Your task to perform on an android device: Open wifi settings Image 0: 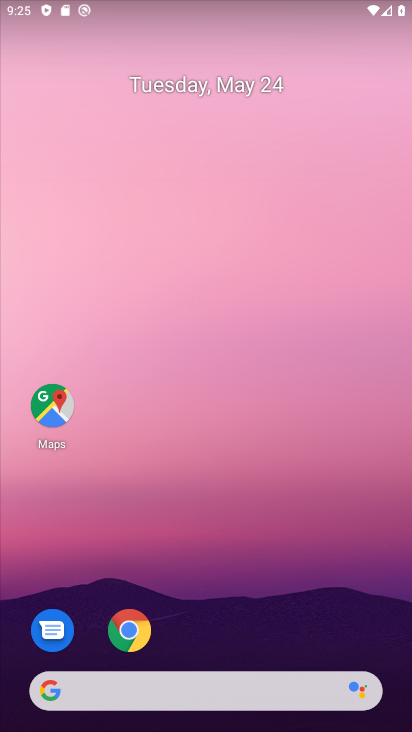
Step 0: drag from (347, 13) to (326, 540)
Your task to perform on an android device: Open wifi settings Image 1: 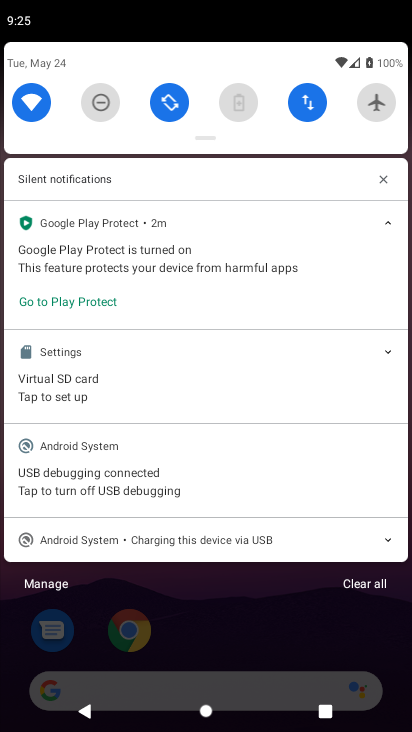
Step 1: click (33, 120)
Your task to perform on an android device: Open wifi settings Image 2: 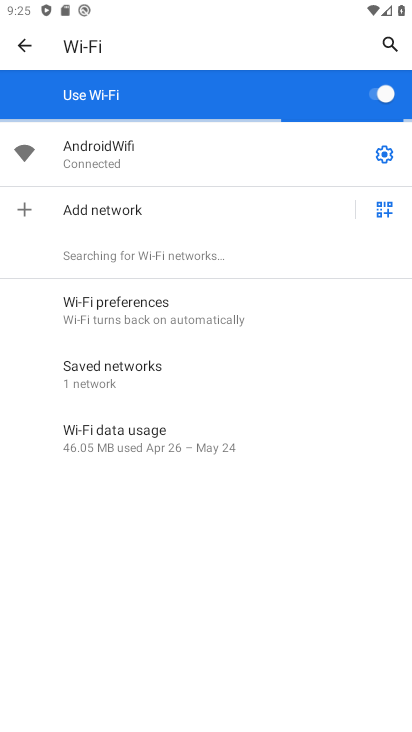
Step 2: task complete